Your task to perform on an android device: turn on location history Image 0: 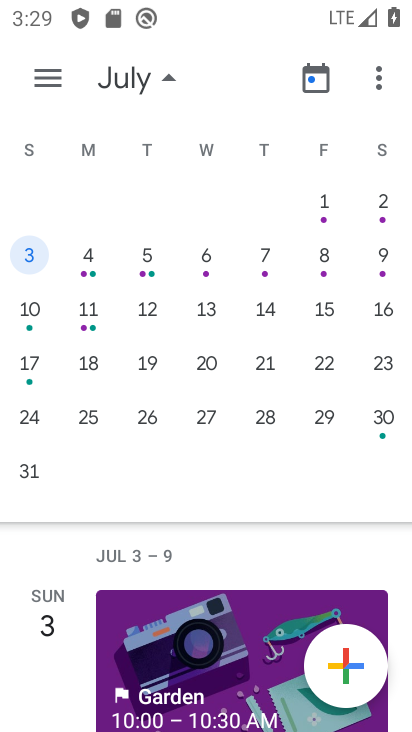
Step 0: click (280, 180)
Your task to perform on an android device: turn on location history Image 1: 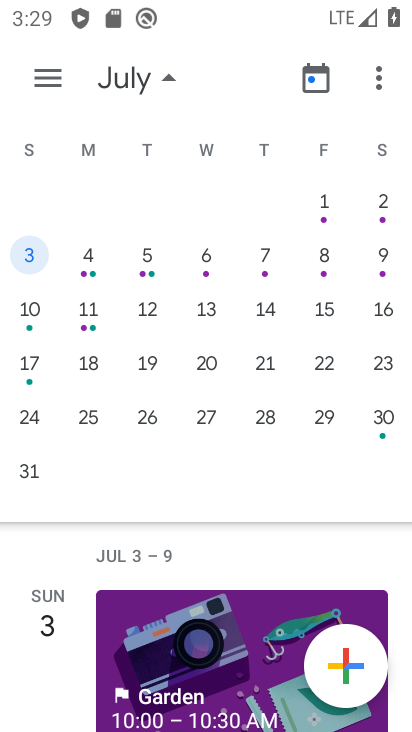
Step 1: press home button
Your task to perform on an android device: turn on location history Image 2: 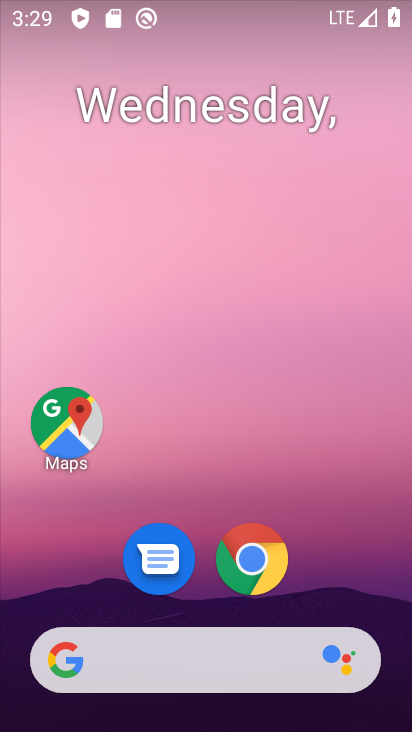
Step 2: click (246, 145)
Your task to perform on an android device: turn on location history Image 3: 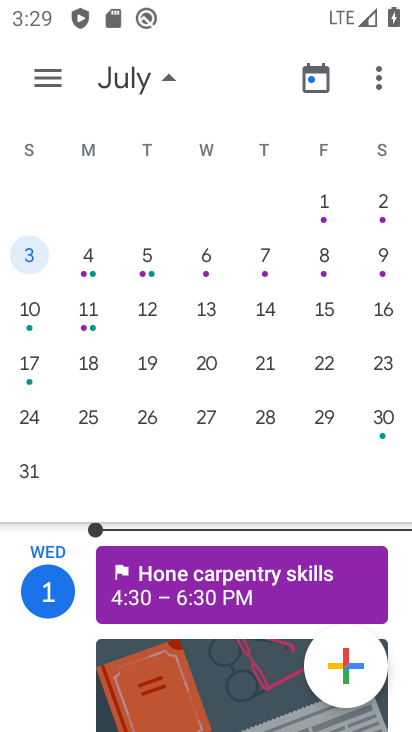
Step 3: drag from (300, 289) to (241, 55)
Your task to perform on an android device: turn on location history Image 4: 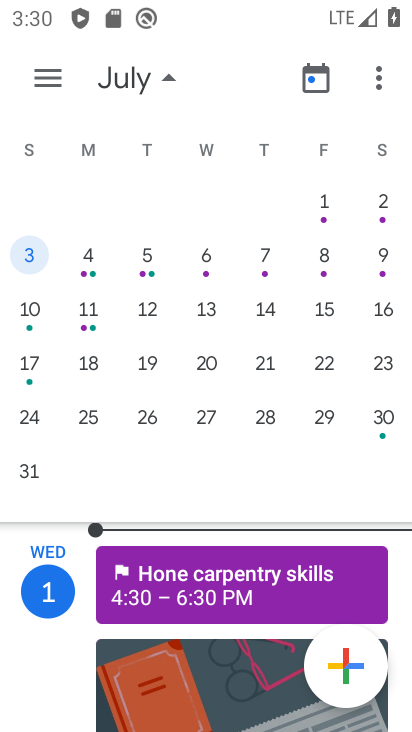
Step 4: press home button
Your task to perform on an android device: turn on location history Image 5: 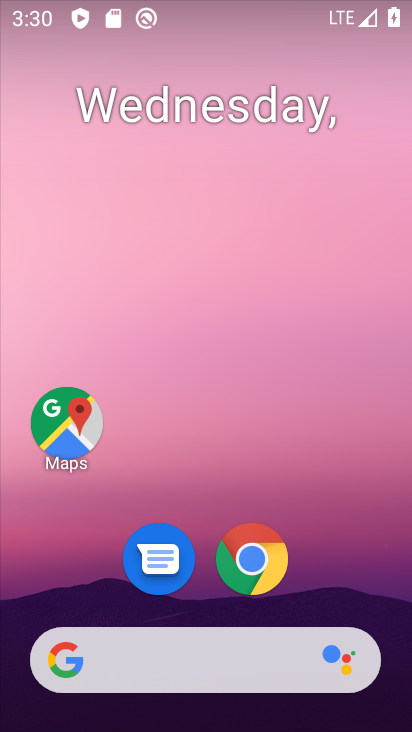
Step 5: drag from (288, 247) to (265, 161)
Your task to perform on an android device: turn on location history Image 6: 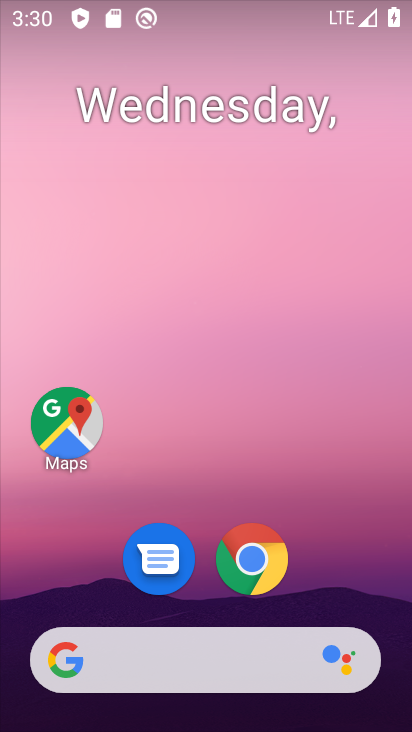
Step 6: drag from (343, 501) to (294, 54)
Your task to perform on an android device: turn on location history Image 7: 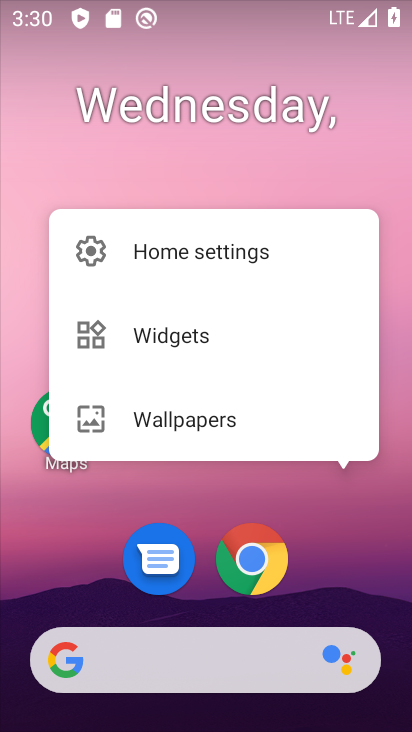
Step 7: click (355, 591)
Your task to perform on an android device: turn on location history Image 8: 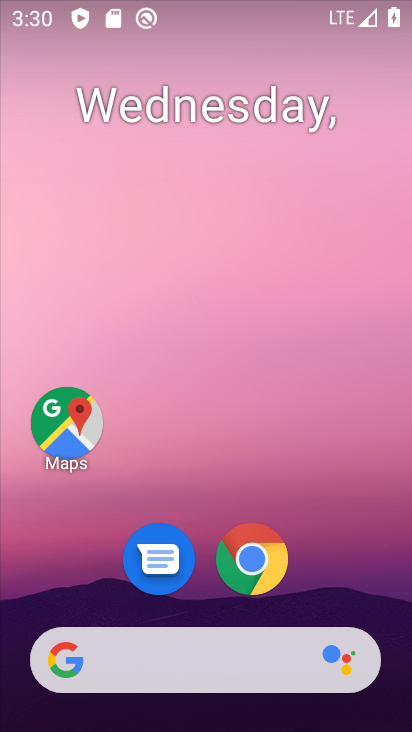
Step 8: drag from (323, 506) to (289, 2)
Your task to perform on an android device: turn on location history Image 9: 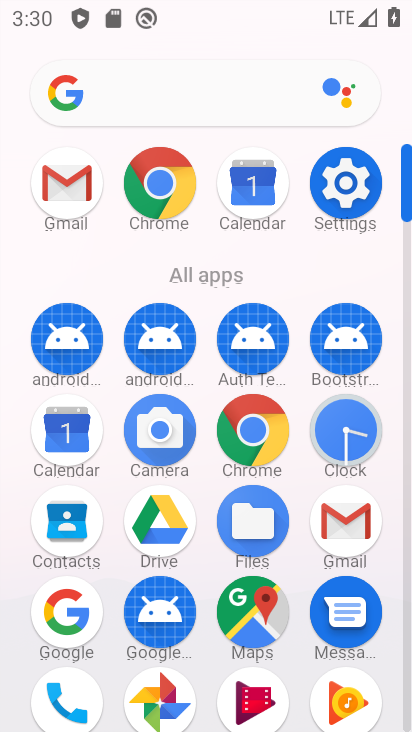
Step 9: click (371, 194)
Your task to perform on an android device: turn on location history Image 10: 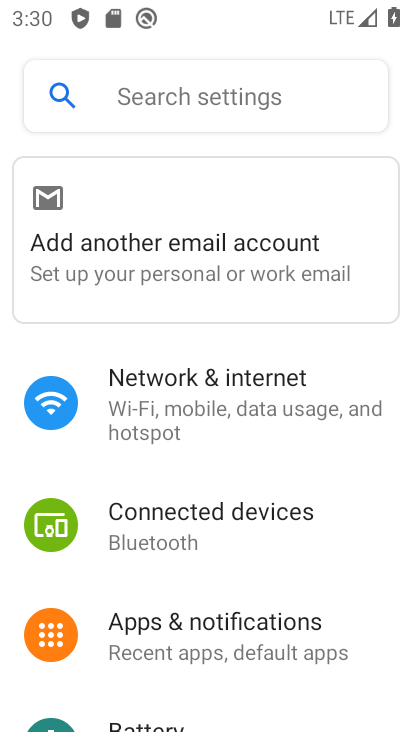
Step 10: drag from (232, 423) to (223, 179)
Your task to perform on an android device: turn on location history Image 11: 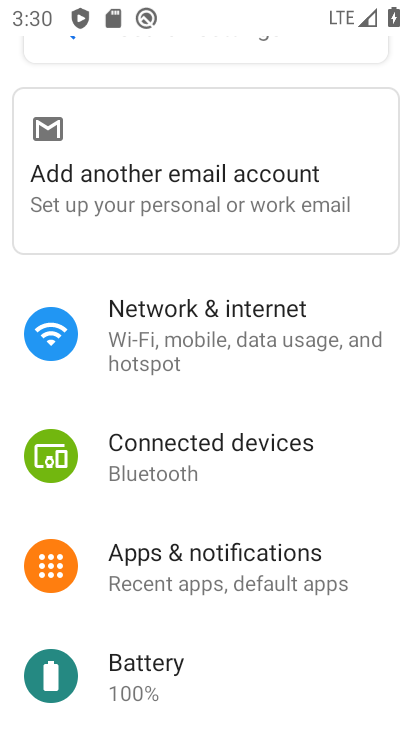
Step 11: drag from (241, 348) to (247, 60)
Your task to perform on an android device: turn on location history Image 12: 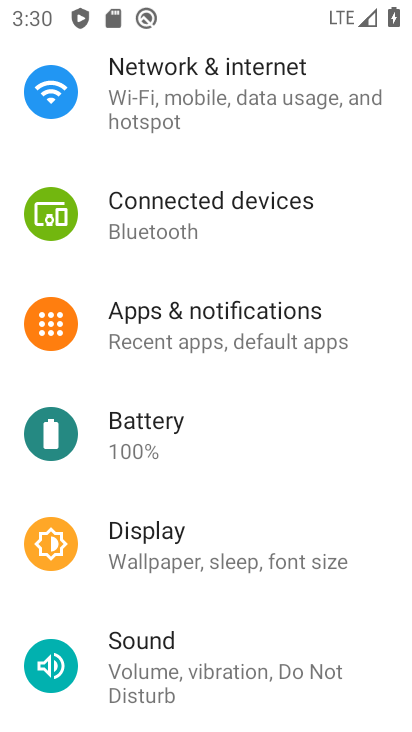
Step 12: drag from (251, 639) to (263, 71)
Your task to perform on an android device: turn on location history Image 13: 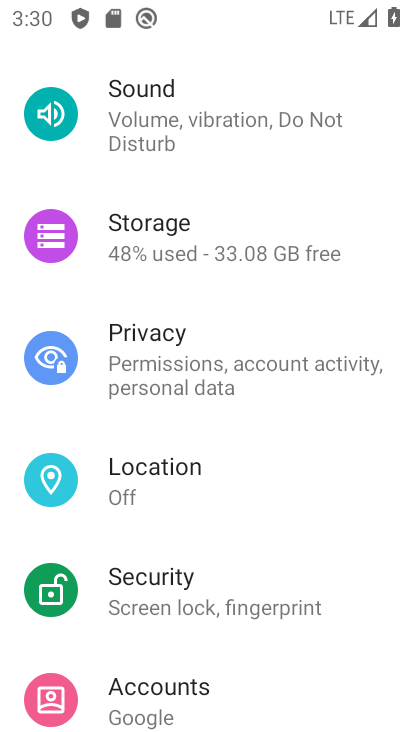
Step 13: click (142, 483)
Your task to perform on an android device: turn on location history Image 14: 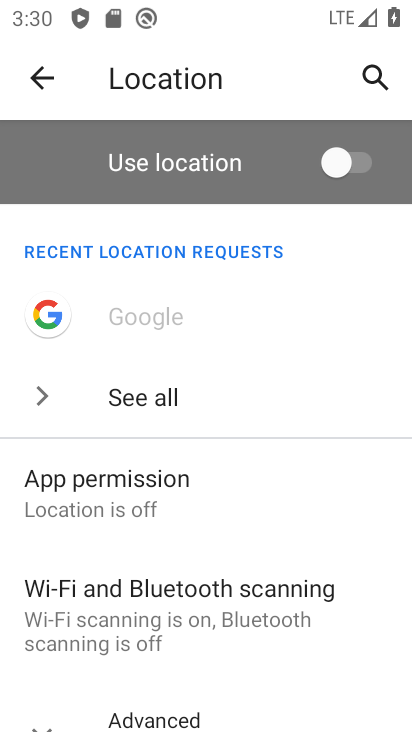
Step 14: drag from (217, 687) to (242, 222)
Your task to perform on an android device: turn on location history Image 15: 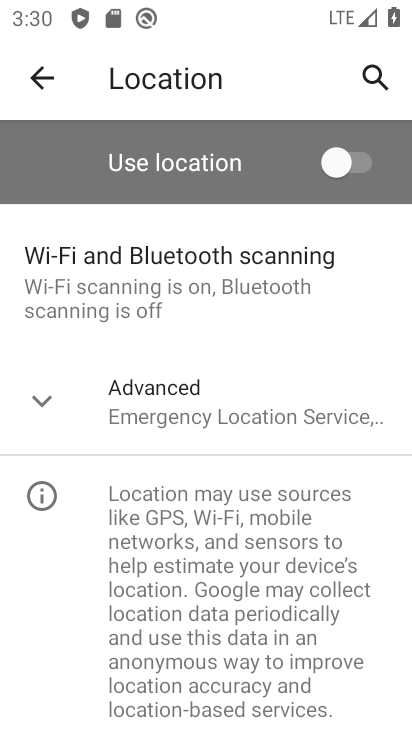
Step 15: click (216, 421)
Your task to perform on an android device: turn on location history Image 16: 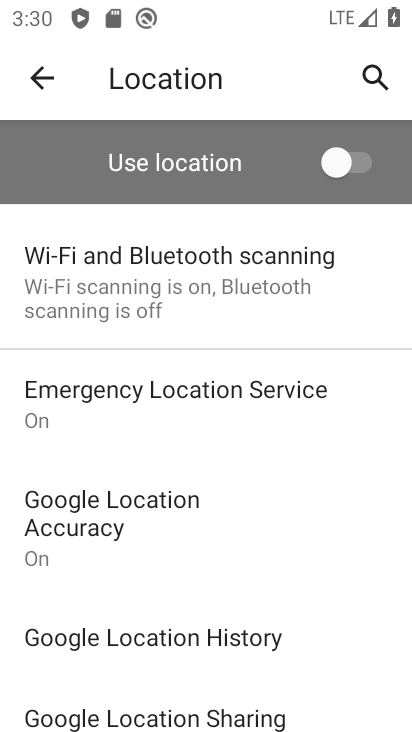
Step 16: click (270, 637)
Your task to perform on an android device: turn on location history Image 17: 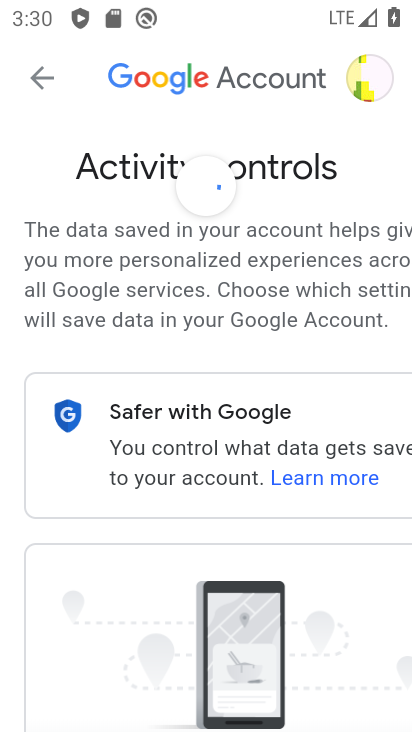
Step 17: drag from (274, 494) to (245, 96)
Your task to perform on an android device: turn on location history Image 18: 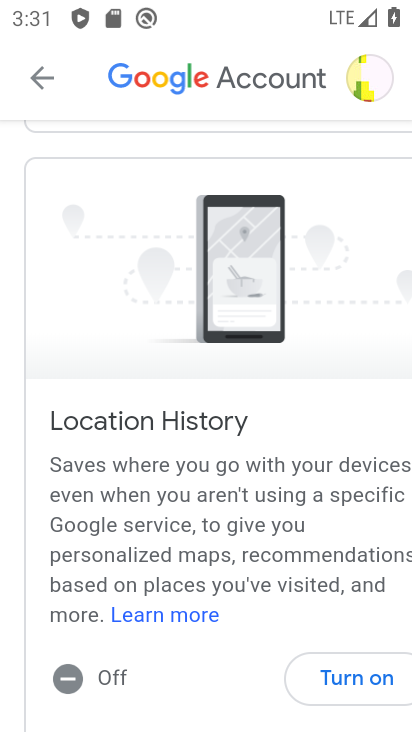
Step 18: click (357, 682)
Your task to perform on an android device: turn on location history Image 19: 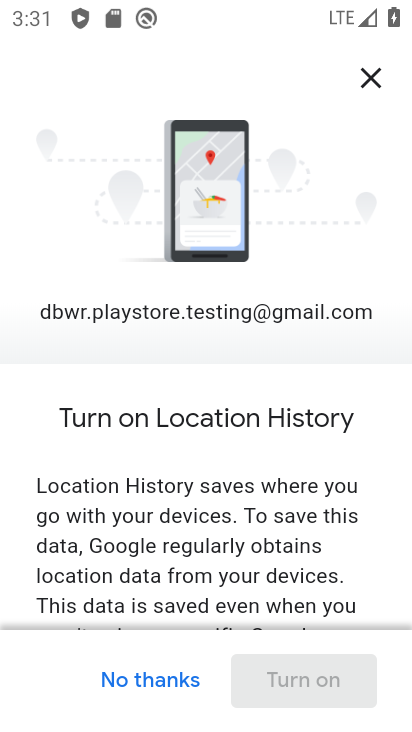
Step 19: drag from (278, 394) to (241, 37)
Your task to perform on an android device: turn on location history Image 20: 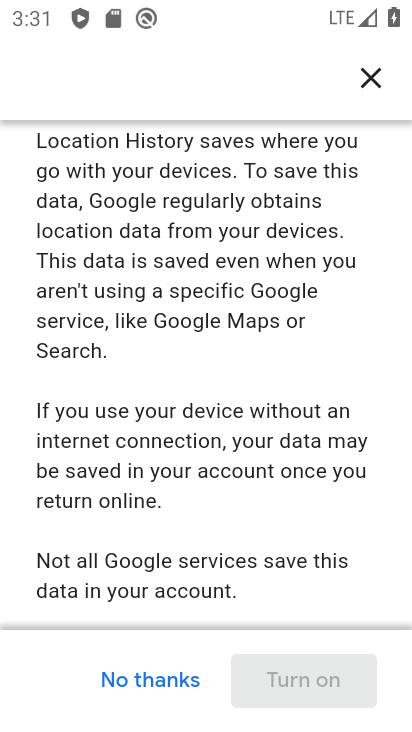
Step 20: drag from (236, 391) to (227, 90)
Your task to perform on an android device: turn on location history Image 21: 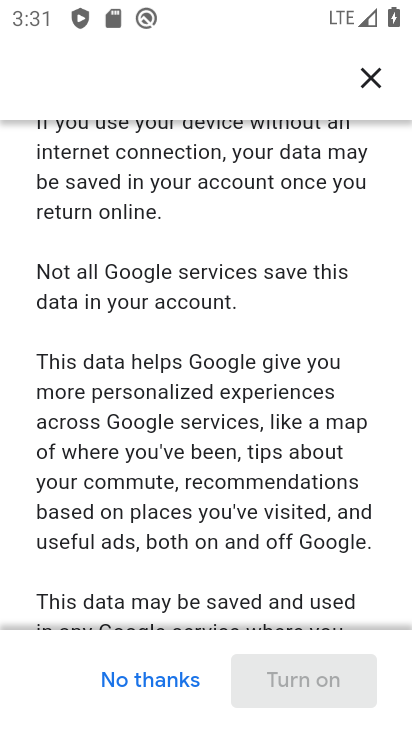
Step 21: drag from (295, 513) to (238, 83)
Your task to perform on an android device: turn on location history Image 22: 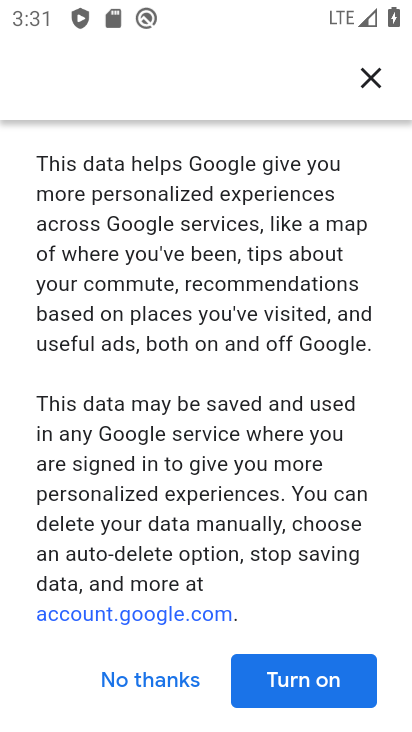
Step 22: click (263, 679)
Your task to perform on an android device: turn on location history Image 23: 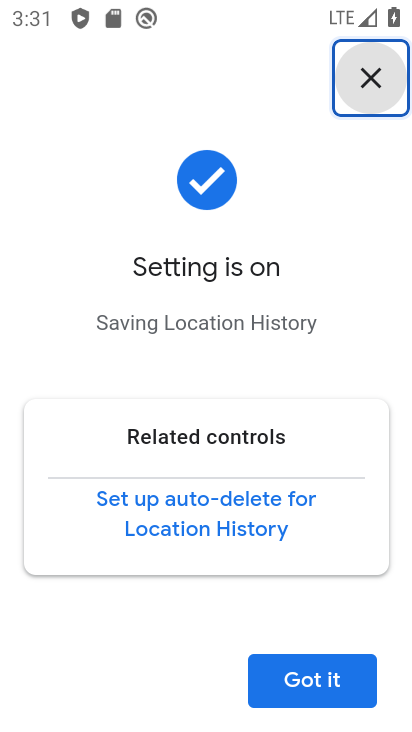
Step 23: task complete